Your task to perform on an android device: Open Google Chrome and click the shortcut for Amazon.com Image 0: 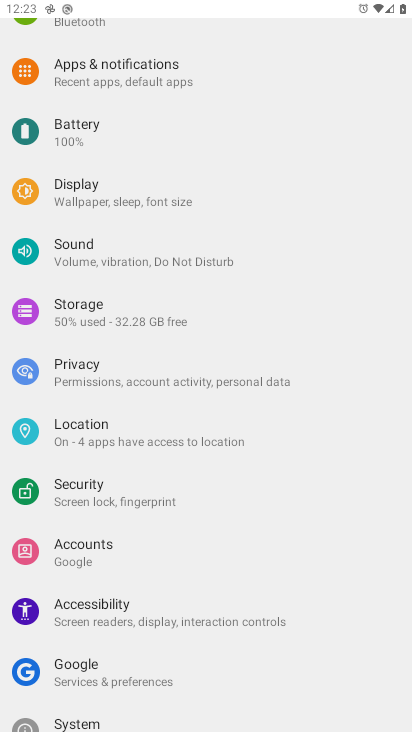
Step 0: press home button
Your task to perform on an android device: Open Google Chrome and click the shortcut for Amazon.com Image 1: 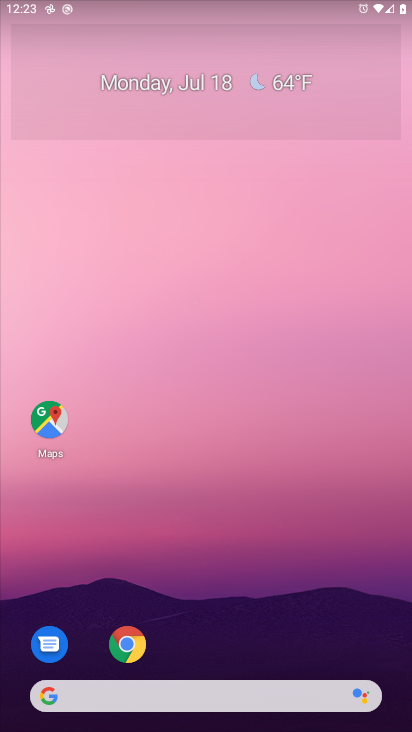
Step 1: click (122, 648)
Your task to perform on an android device: Open Google Chrome and click the shortcut for Amazon.com Image 2: 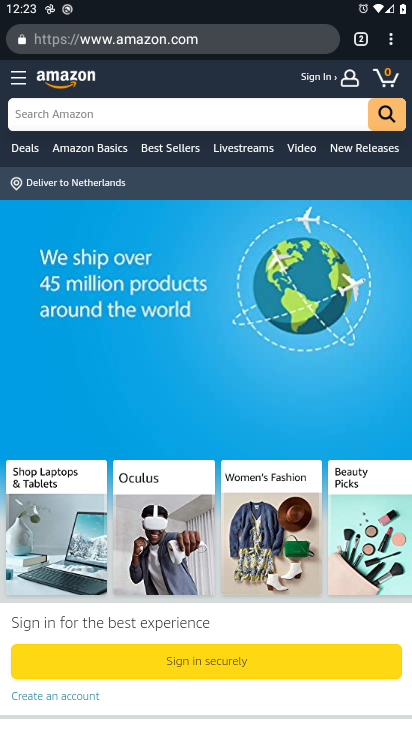
Step 2: click (361, 35)
Your task to perform on an android device: Open Google Chrome and click the shortcut for Amazon.com Image 3: 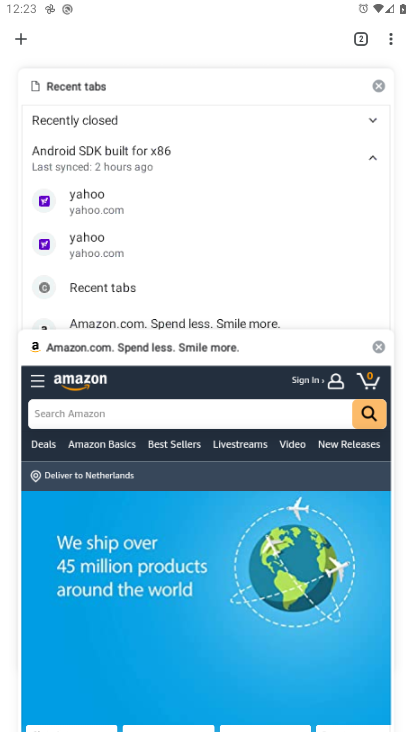
Step 3: click (22, 34)
Your task to perform on an android device: Open Google Chrome and click the shortcut for Amazon.com Image 4: 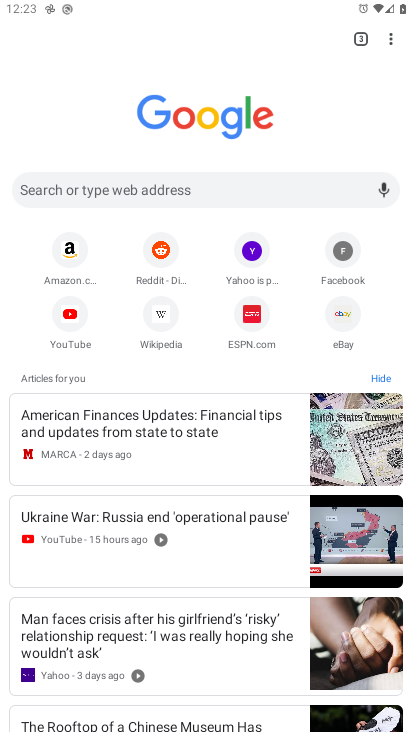
Step 4: click (64, 247)
Your task to perform on an android device: Open Google Chrome and click the shortcut for Amazon.com Image 5: 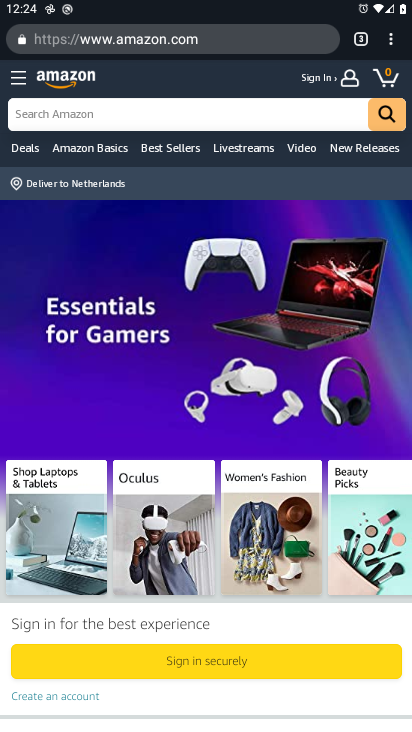
Step 5: task complete